Your task to perform on an android device: Open Chrome and go to the settings page Image 0: 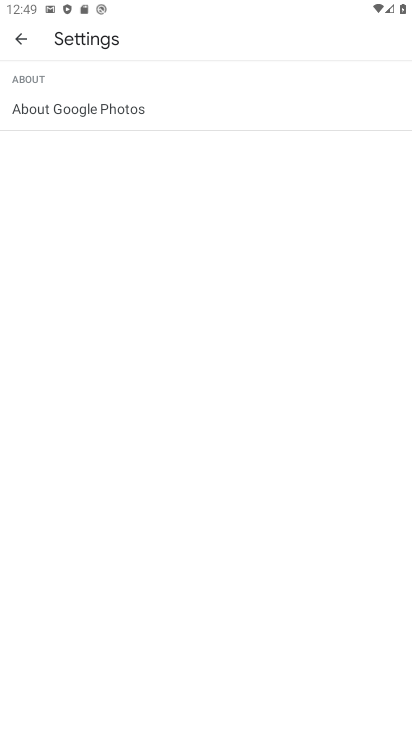
Step 0: press home button
Your task to perform on an android device: Open Chrome and go to the settings page Image 1: 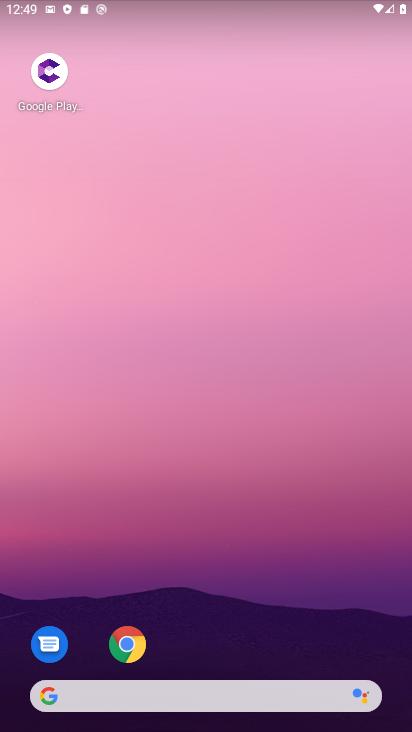
Step 1: click (131, 647)
Your task to perform on an android device: Open Chrome and go to the settings page Image 2: 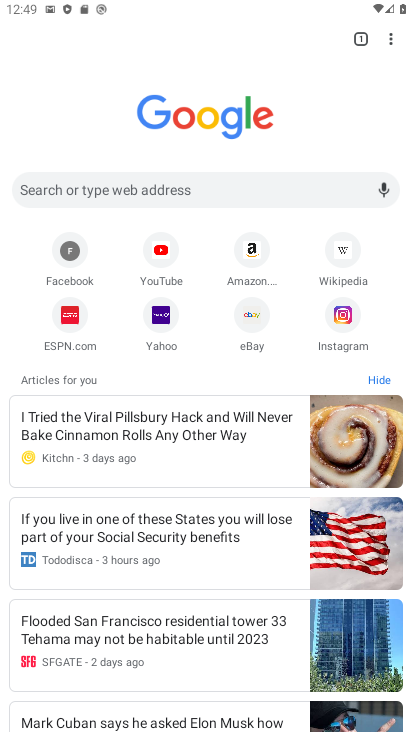
Step 2: click (385, 39)
Your task to perform on an android device: Open Chrome and go to the settings page Image 3: 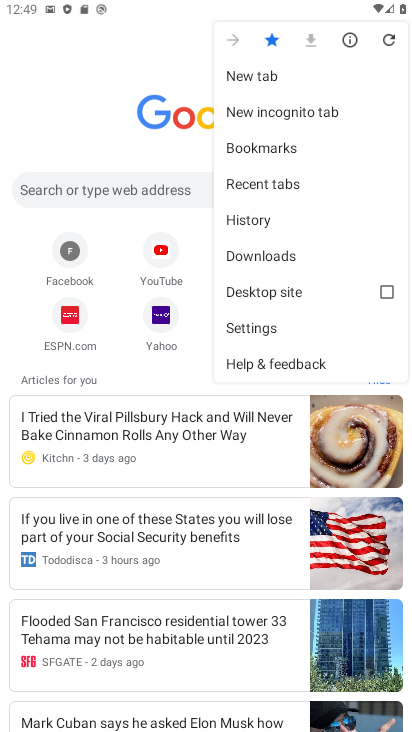
Step 3: click (281, 331)
Your task to perform on an android device: Open Chrome and go to the settings page Image 4: 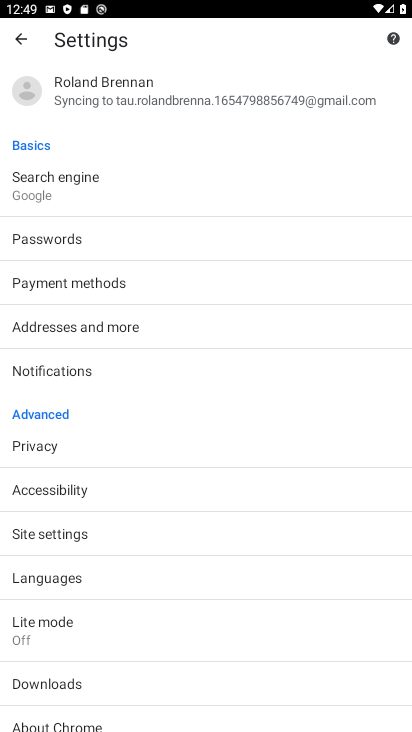
Step 4: task complete